Your task to perform on an android device: open the mobile data screen to see how much data has been used Image 0: 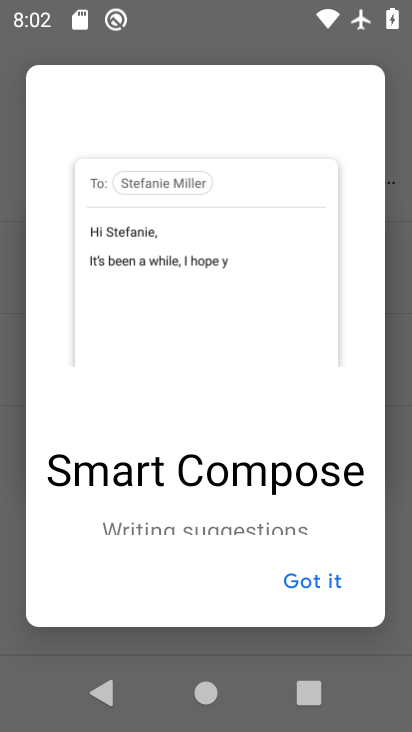
Step 0: press home button
Your task to perform on an android device: open the mobile data screen to see how much data has been used Image 1: 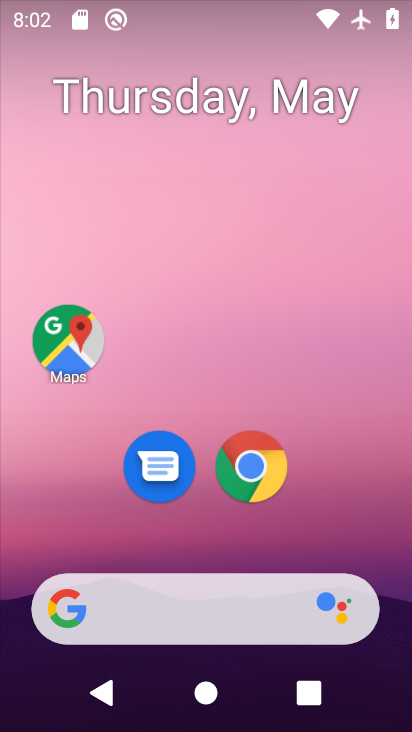
Step 1: drag from (359, 500) to (368, 194)
Your task to perform on an android device: open the mobile data screen to see how much data has been used Image 2: 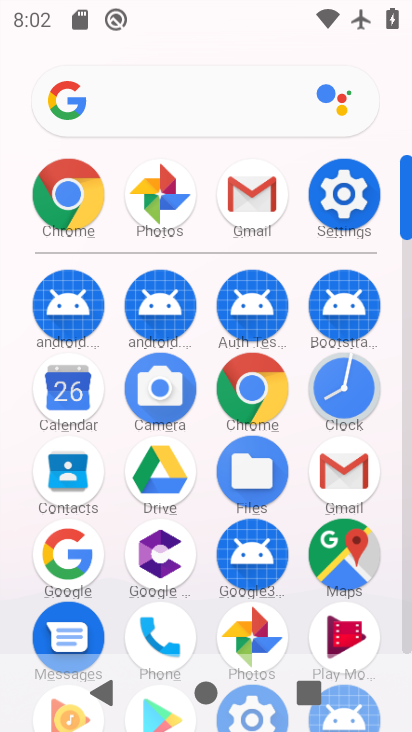
Step 2: click (346, 194)
Your task to perform on an android device: open the mobile data screen to see how much data has been used Image 3: 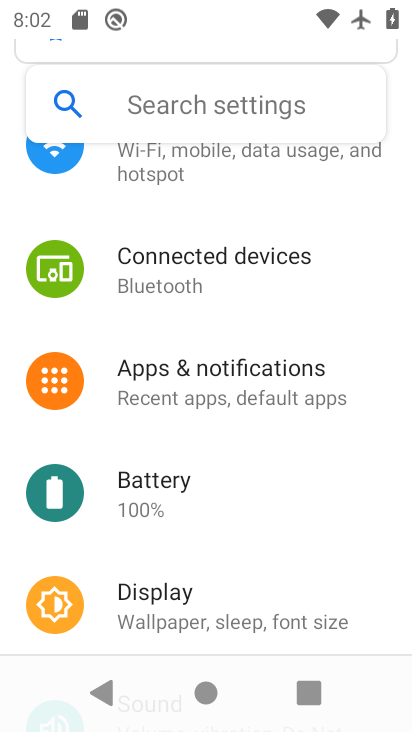
Step 3: drag from (260, 234) to (285, 686)
Your task to perform on an android device: open the mobile data screen to see how much data has been used Image 4: 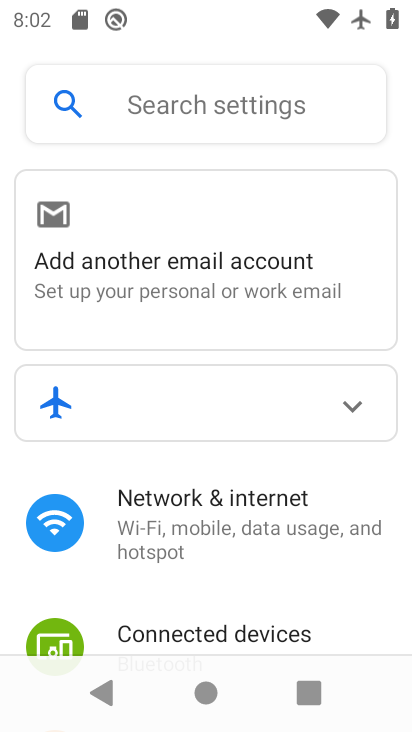
Step 4: click (241, 549)
Your task to perform on an android device: open the mobile data screen to see how much data has been used Image 5: 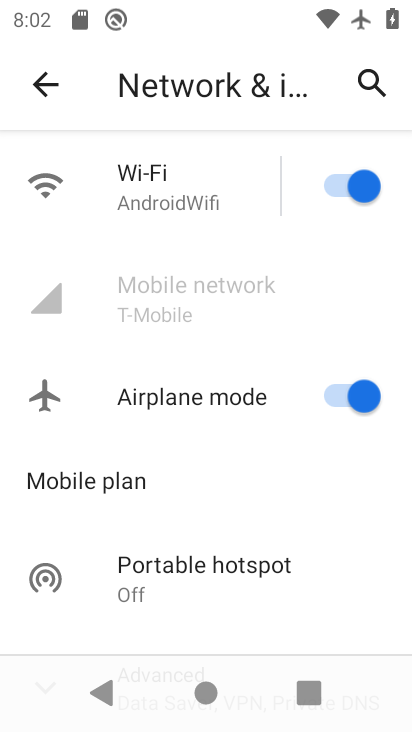
Step 5: click (354, 409)
Your task to perform on an android device: open the mobile data screen to see how much data has been used Image 6: 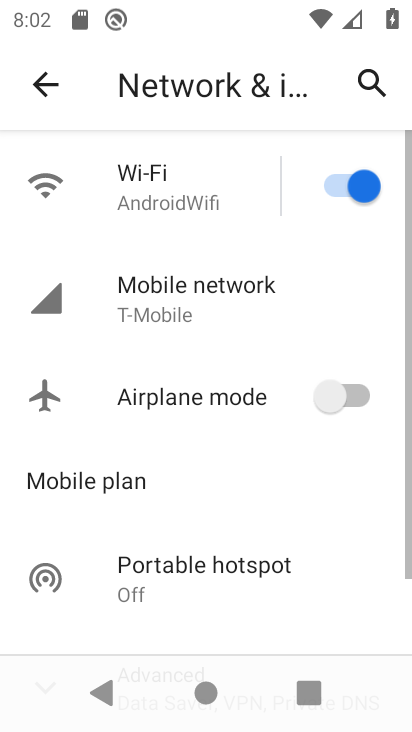
Step 6: click (205, 317)
Your task to perform on an android device: open the mobile data screen to see how much data has been used Image 7: 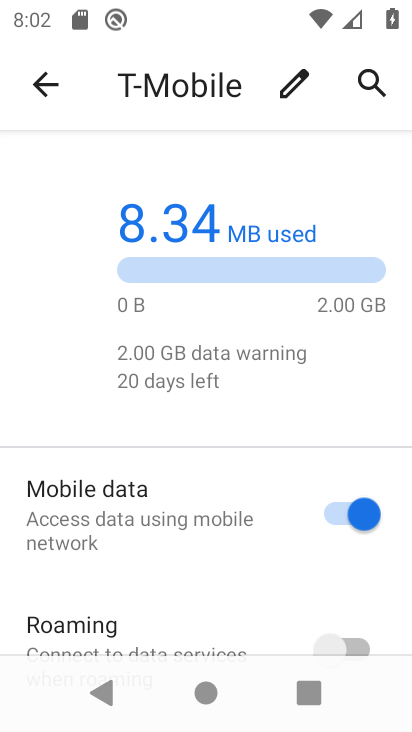
Step 7: task complete